Your task to perform on an android device: turn notification dots on Image 0: 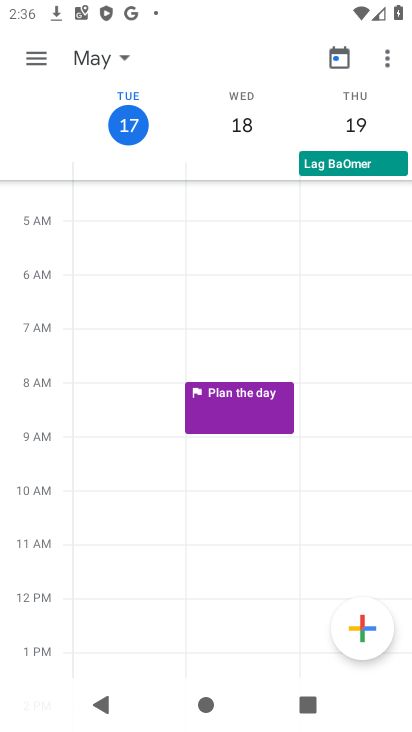
Step 0: press home button
Your task to perform on an android device: turn notification dots on Image 1: 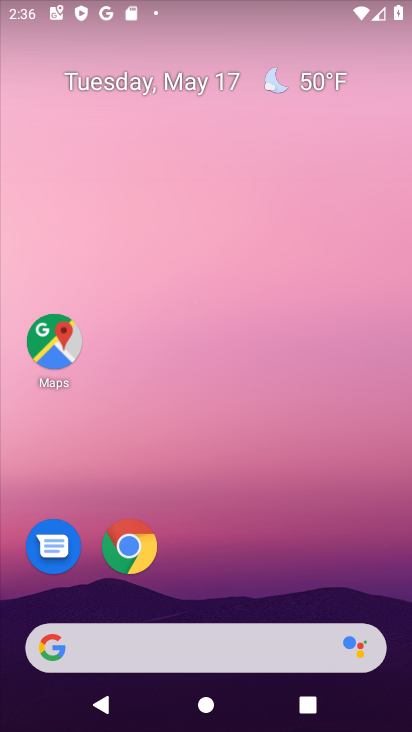
Step 1: drag from (189, 596) to (196, 39)
Your task to perform on an android device: turn notification dots on Image 2: 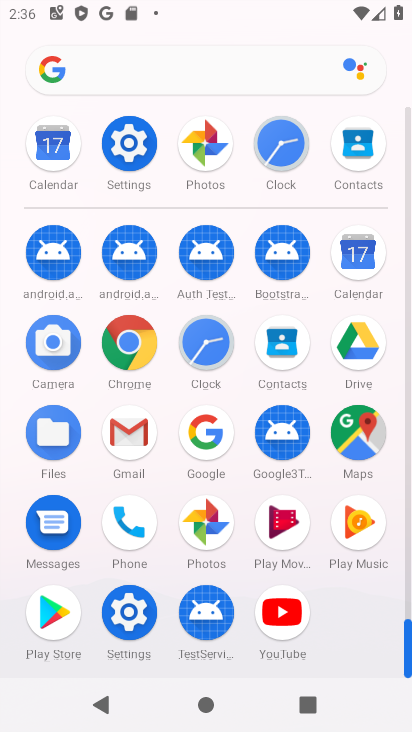
Step 2: click (119, 164)
Your task to perform on an android device: turn notification dots on Image 3: 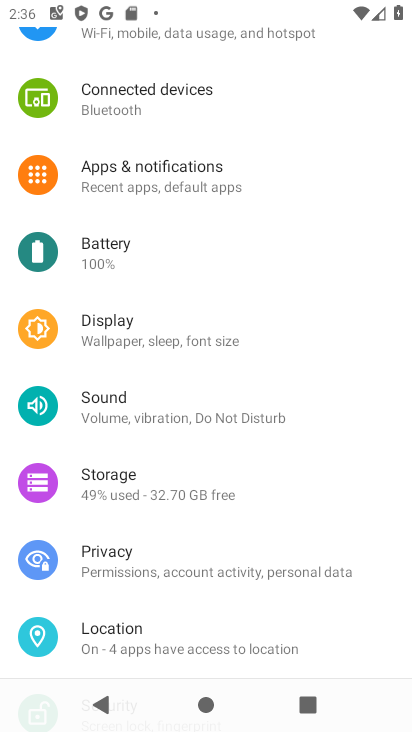
Step 3: click (152, 192)
Your task to perform on an android device: turn notification dots on Image 4: 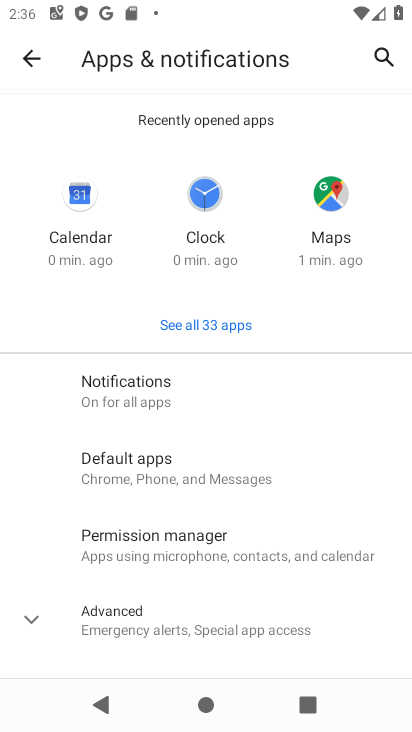
Step 4: click (160, 403)
Your task to perform on an android device: turn notification dots on Image 5: 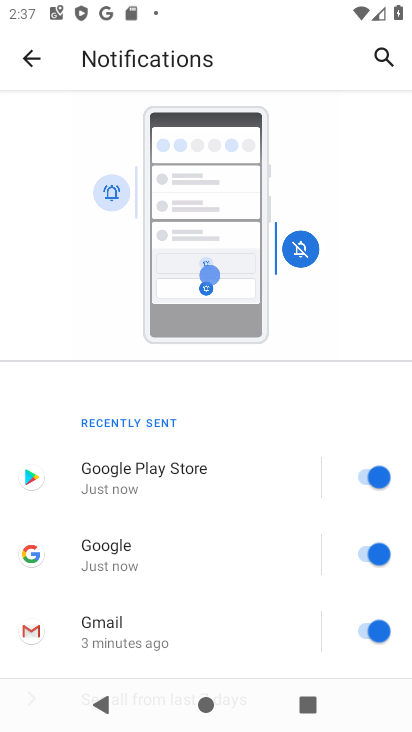
Step 5: drag from (136, 451) to (177, 223)
Your task to perform on an android device: turn notification dots on Image 6: 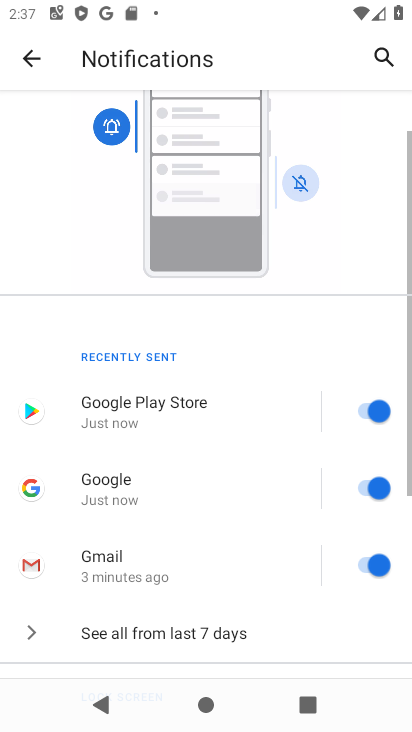
Step 6: drag from (192, 600) to (248, 219)
Your task to perform on an android device: turn notification dots on Image 7: 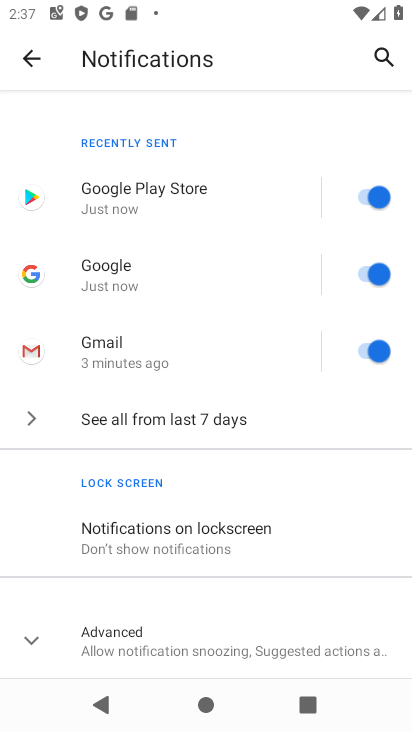
Step 7: click (129, 653)
Your task to perform on an android device: turn notification dots on Image 8: 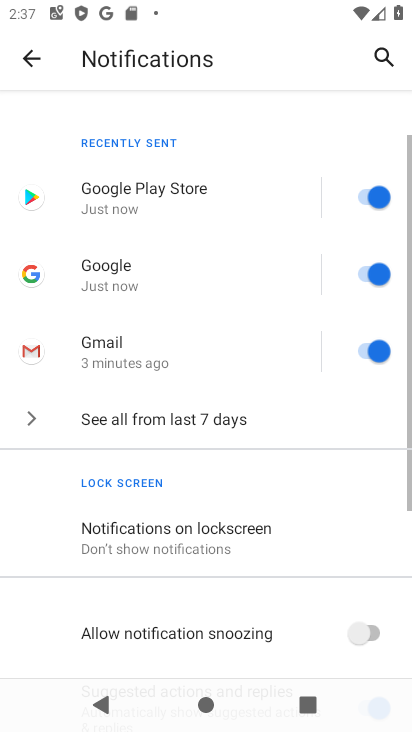
Step 8: drag from (200, 634) to (271, 293)
Your task to perform on an android device: turn notification dots on Image 9: 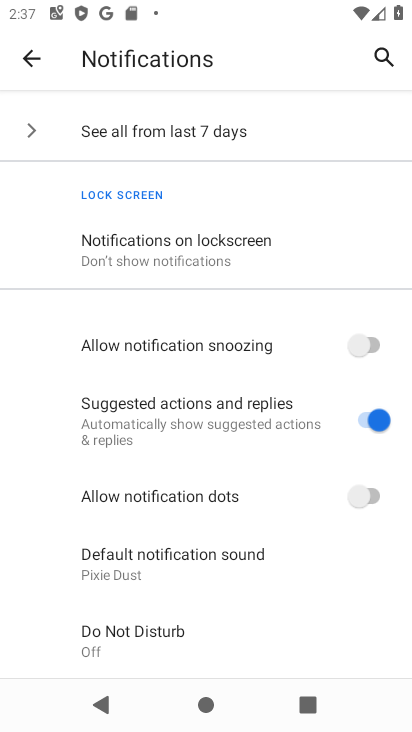
Step 9: click (396, 492)
Your task to perform on an android device: turn notification dots on Image 10: 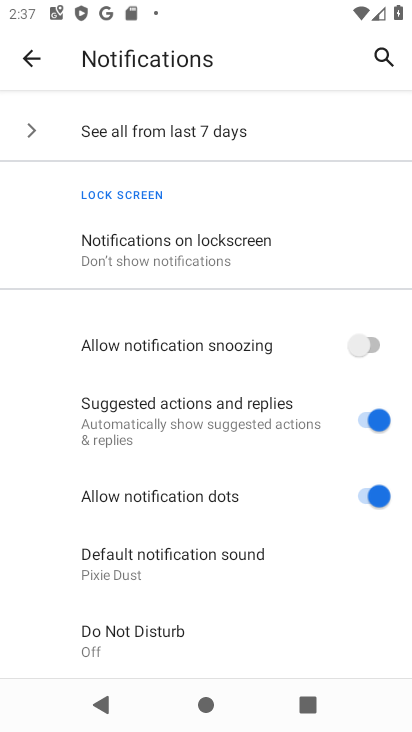
Step 10: task complete